Your task to perform on an android device: What is the recent news? Image 0: 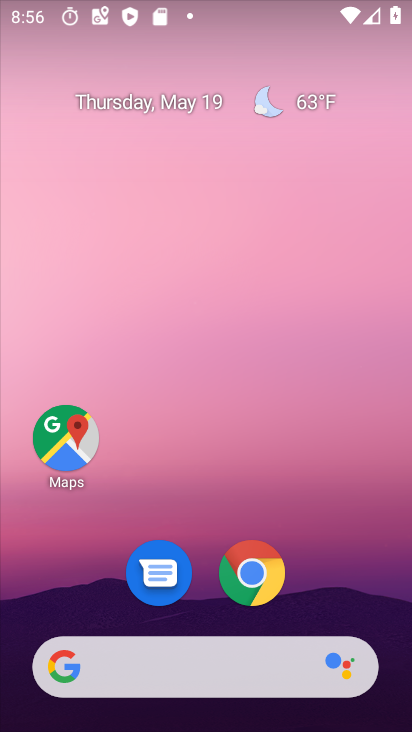
Step 0: click (125, 662)
Your task to perform on an android device: What is the recent news? Image 1: 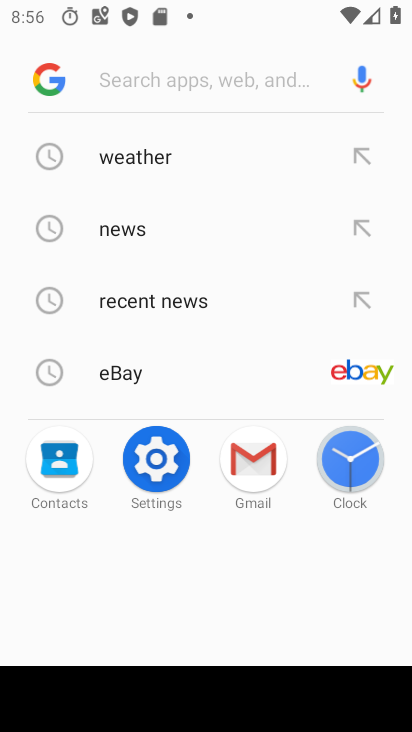
Step 1: click (140, 312)
Your task to perform on an android device: What is the recent news? Image 2: 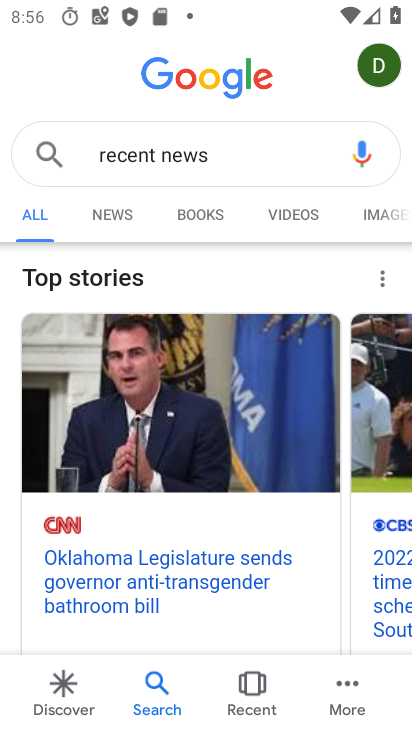
Step 2: click (105, 212)
Your task to perform on an android device: What is the recent news? Image 3: 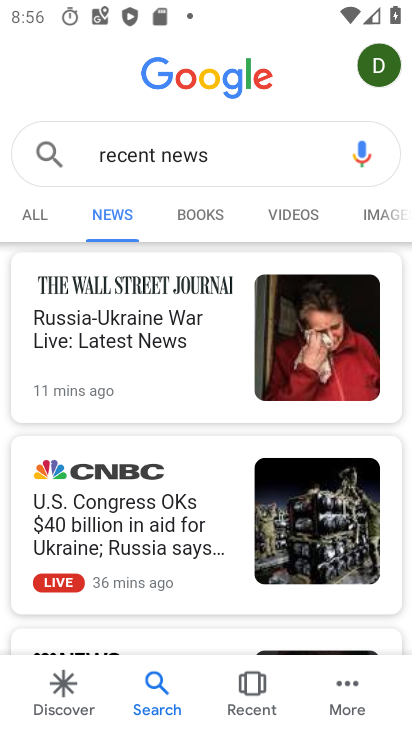
Step 3: click (112, 356)
Your task to perform on an android device: What is the recent news? Image 4: 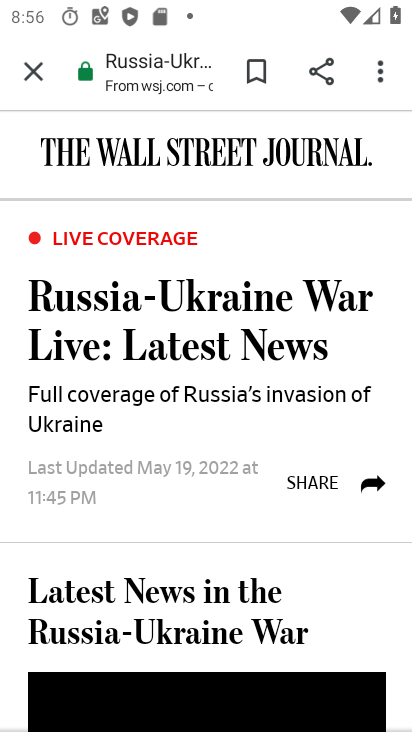
Step 4: task complete